Your task to perform on an android device: turn on sleep mode Image 0: 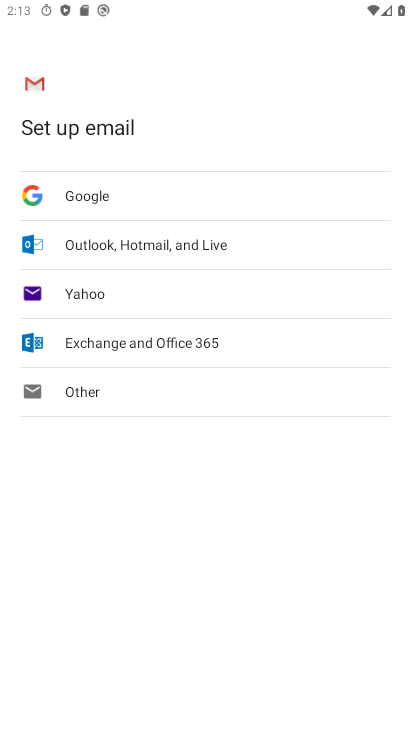
Step 0: press home button
Your task to perform on an android device: turn on sleep mode Image 1: 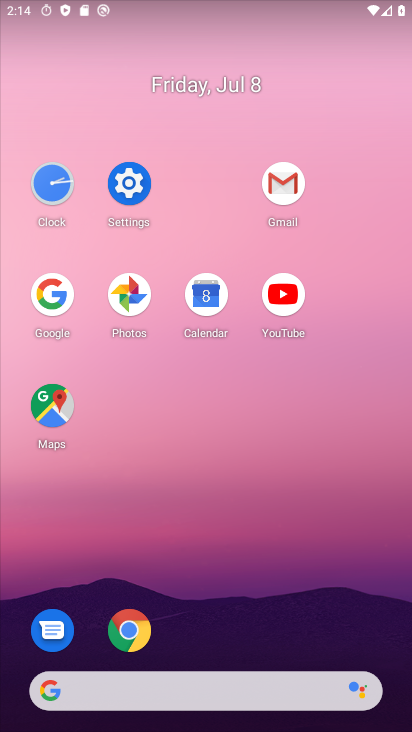
Step 1: click (134, 193)
Your task to perform on an android device: turn on sleep mode Image 2: 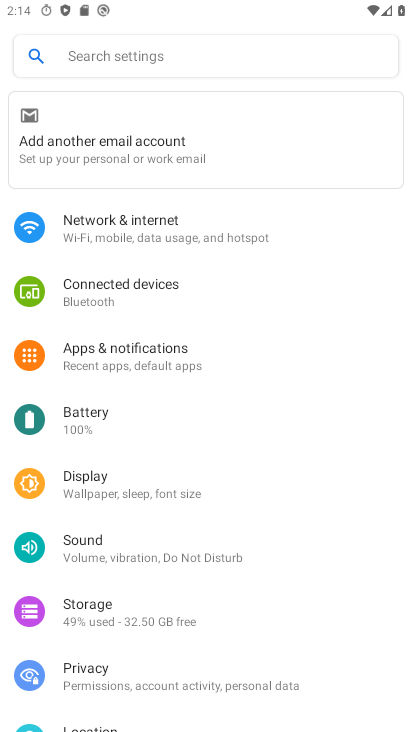
Step 2: click (190, 496)
Your task to perform on an android device: turn on sleep mode Image 3: 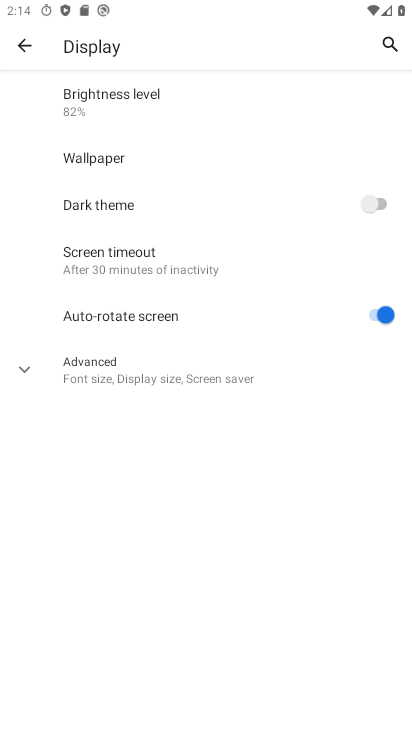
Step 3: click (129, 269)
Your task to perform on an android device: turn on sleep mode Image 4: 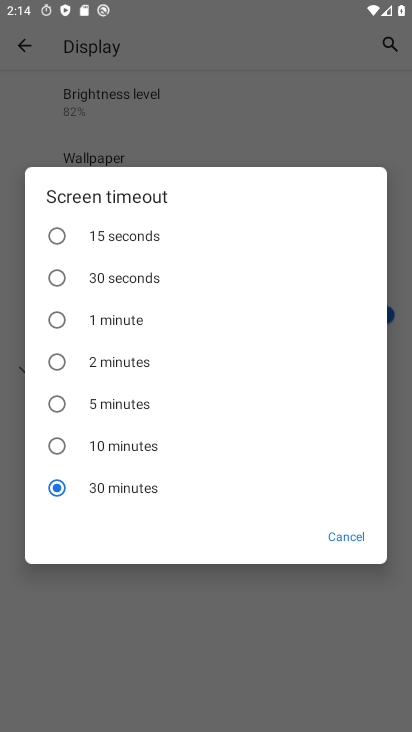
Step 4: task complete